Your task to perform on an android device: uninstall "Calculator" Image 0: 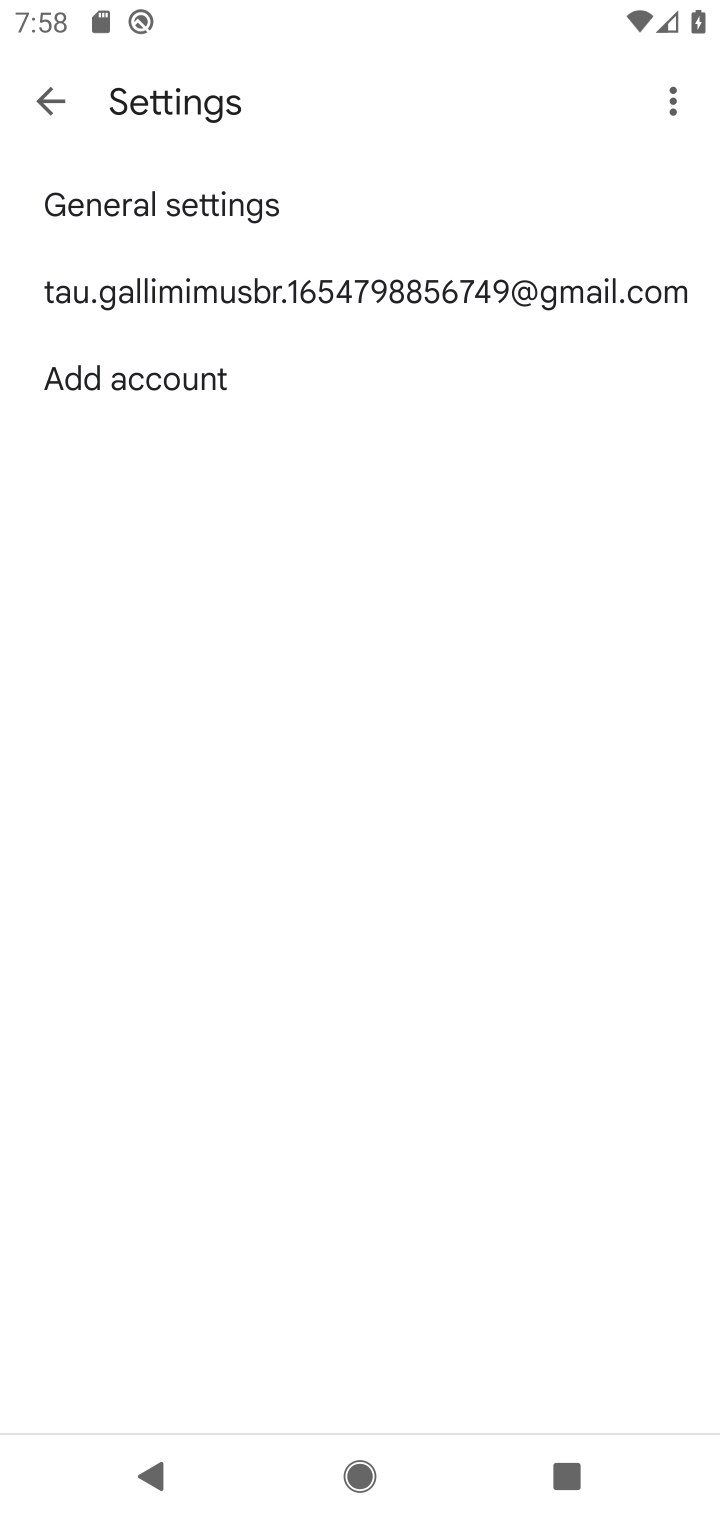
Step 0: press home button
Your task to perform on an android device: uninstall "Calculator" Image 1: 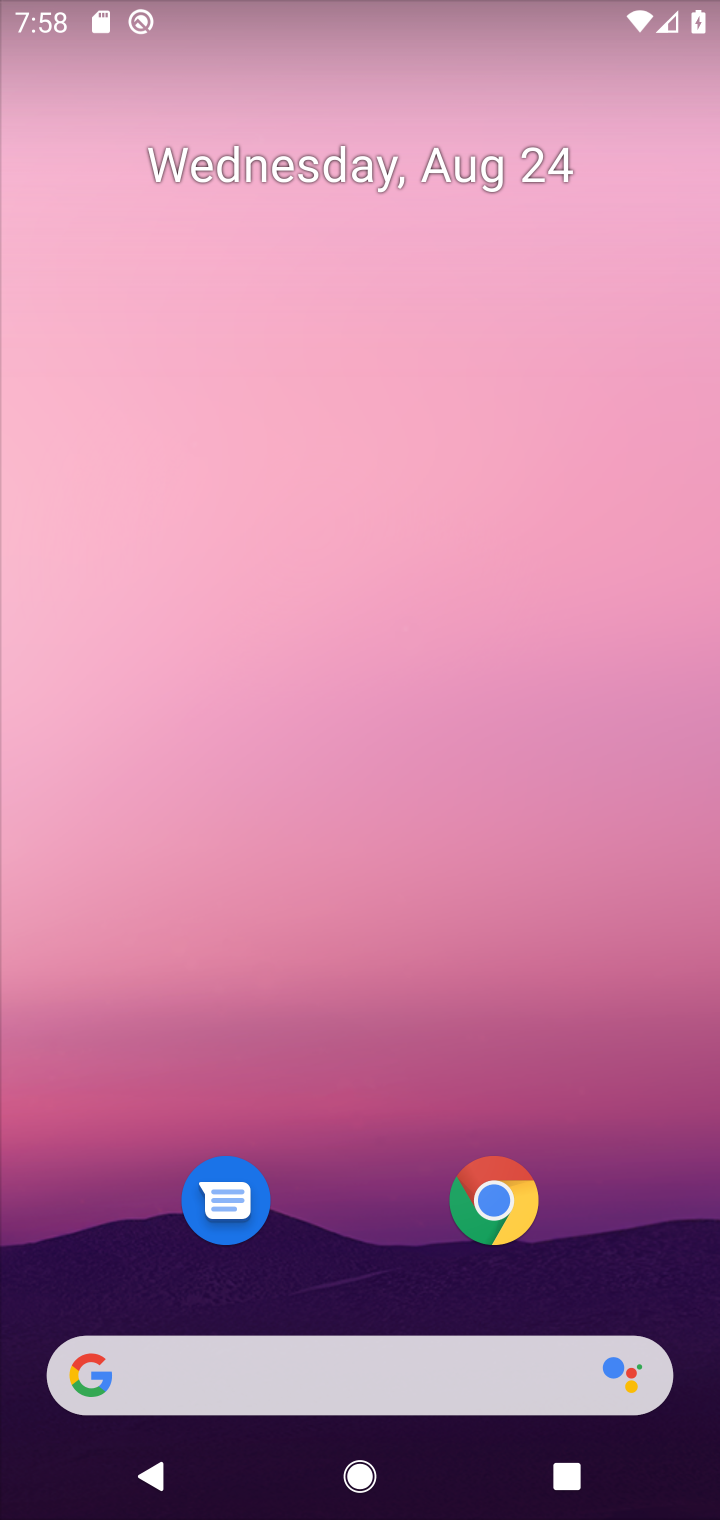
Step 1: drag from (289, 1267) to (168, 2)
Your task to perform on an android device: uninstall "Calculator" Image 2: 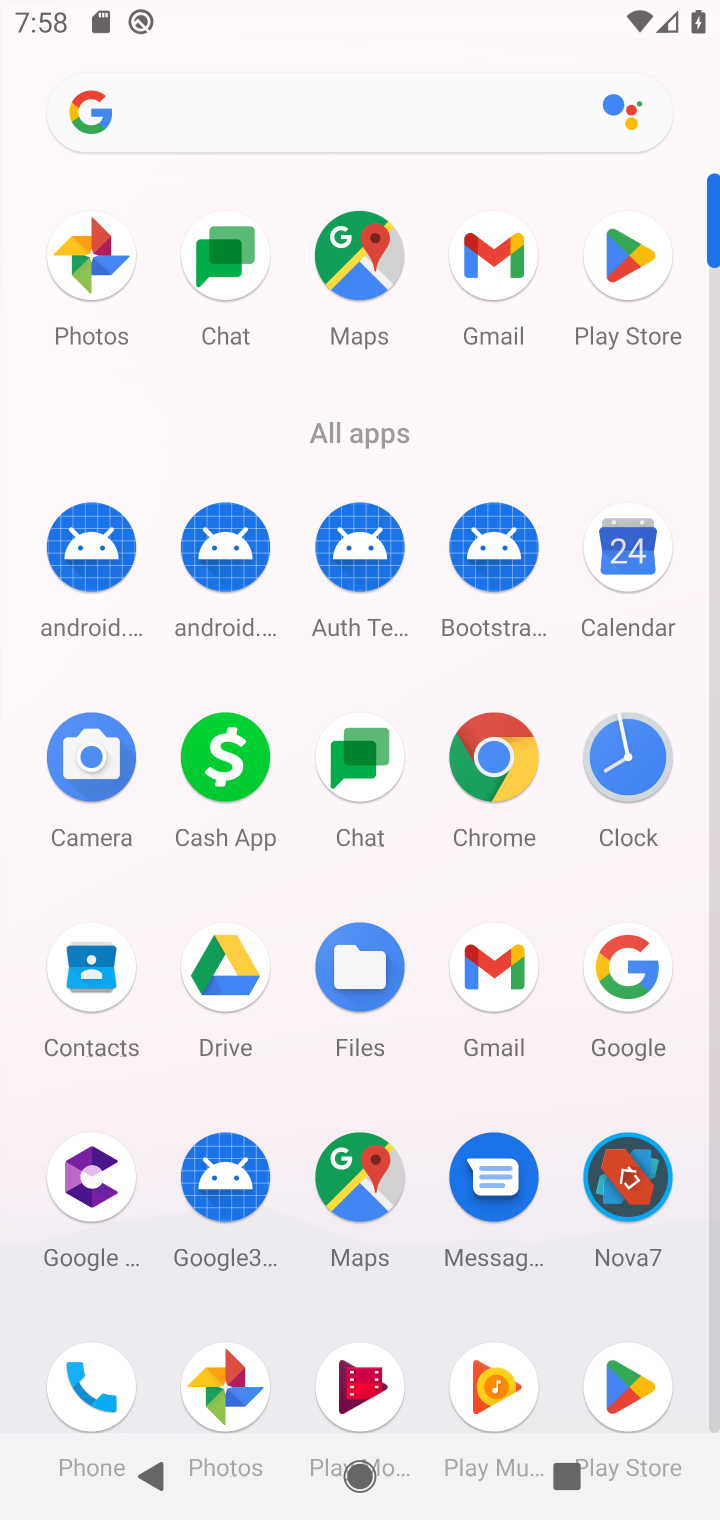
Step 2: click (610, 295)
Your task to perform on an android device: uninstall "Calculator" Image 3: 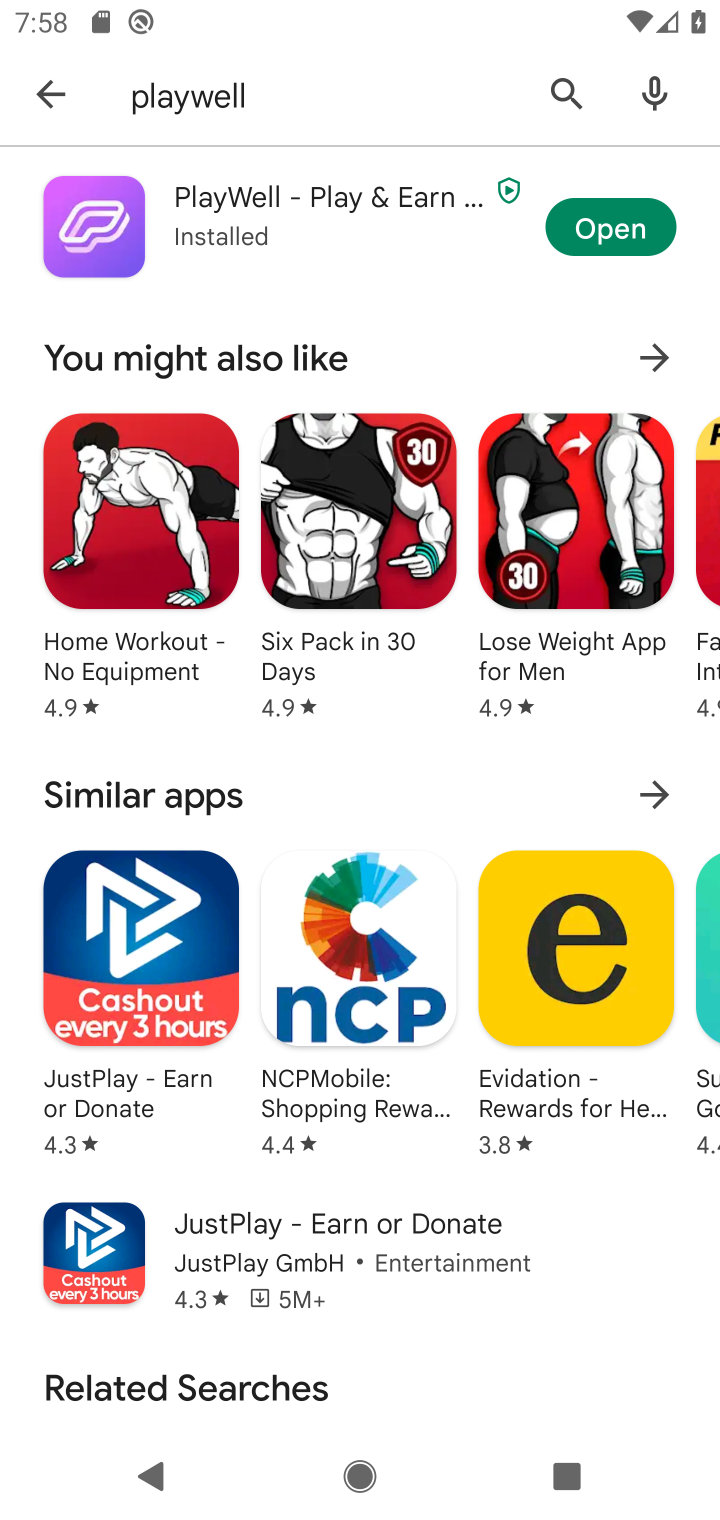
Step 3: click (197, 99)
Your task to perform on an android device: uninstall "Calculator" Image 4: 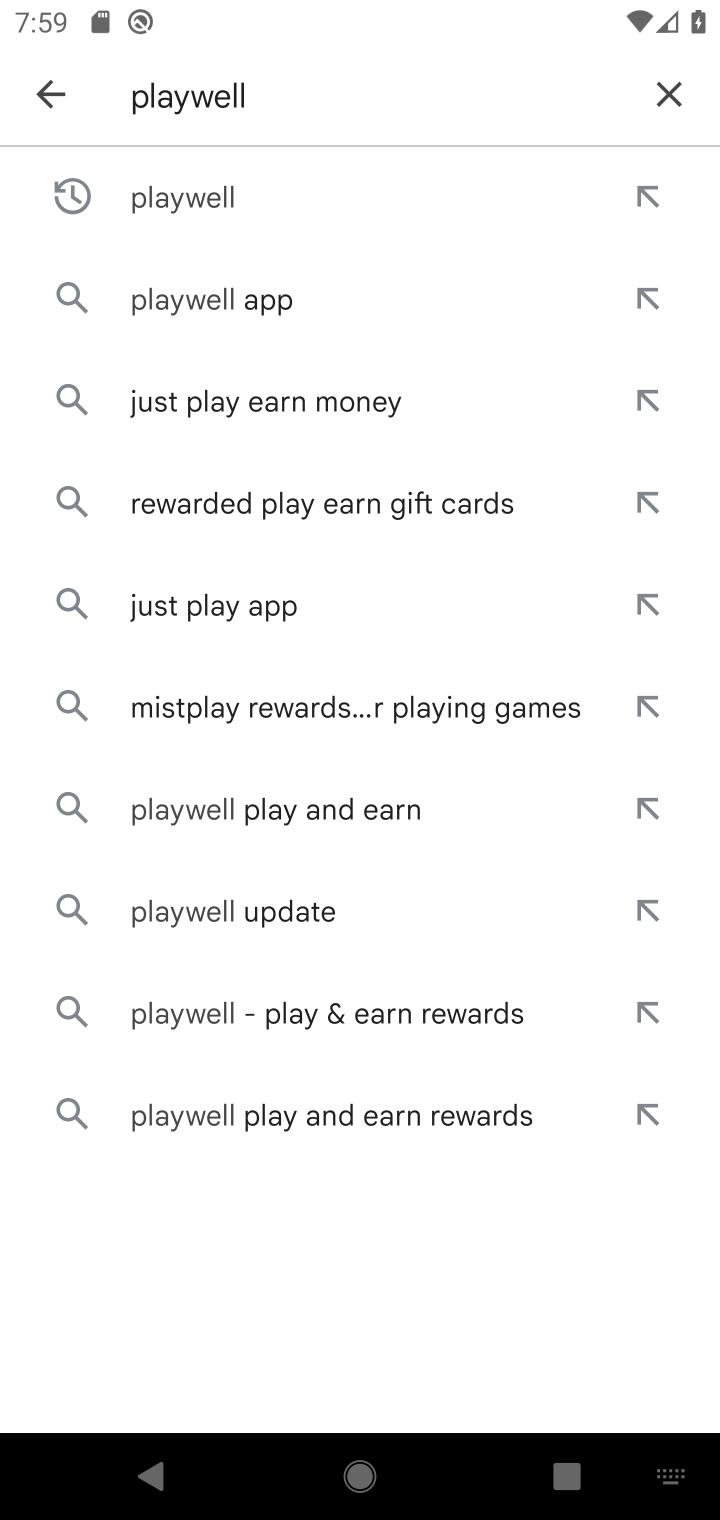
Step 4: click (672, 101)
Your task to perform on an android device: uninstall "Calculator" Image 5: 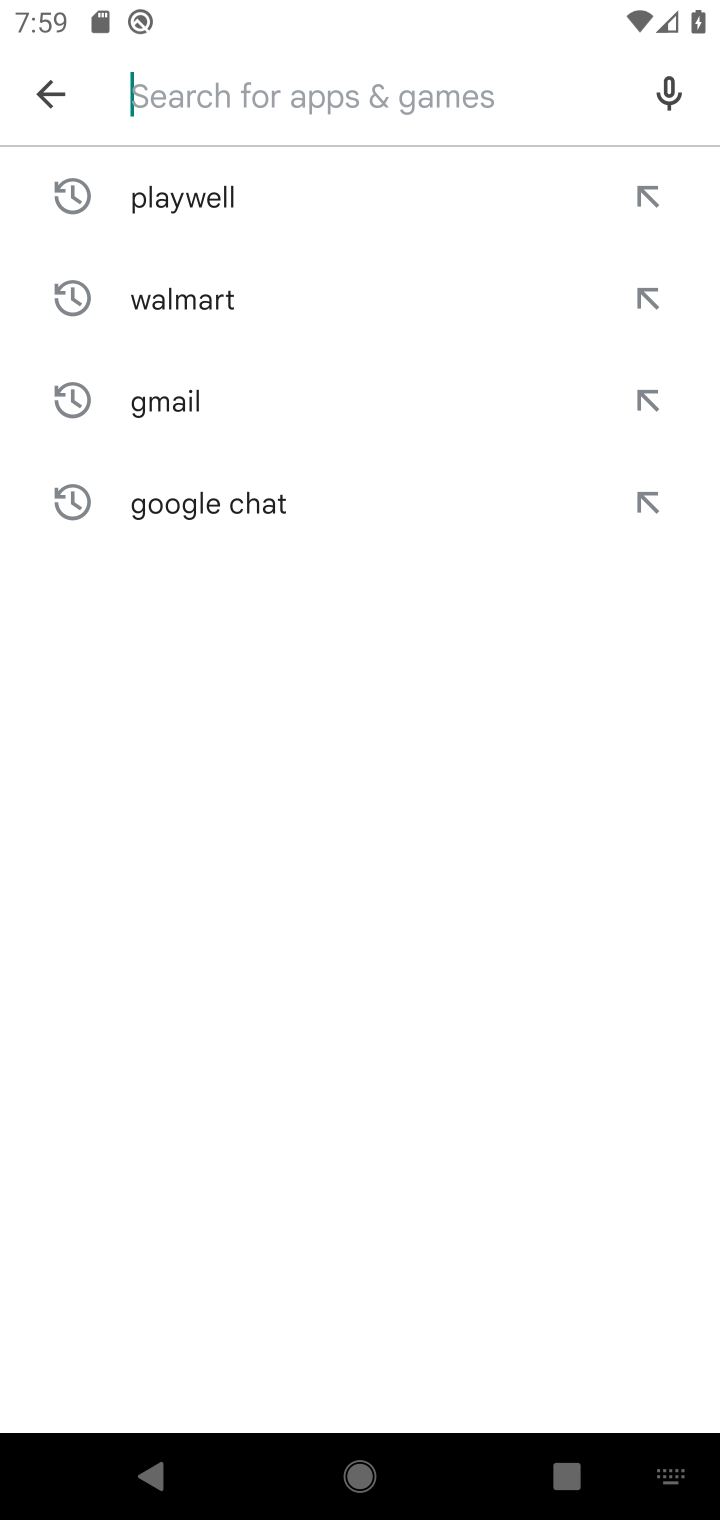
Step 5: type "calculator"
Your task to perform on an android device: uninstall "Calculator" Image 6: 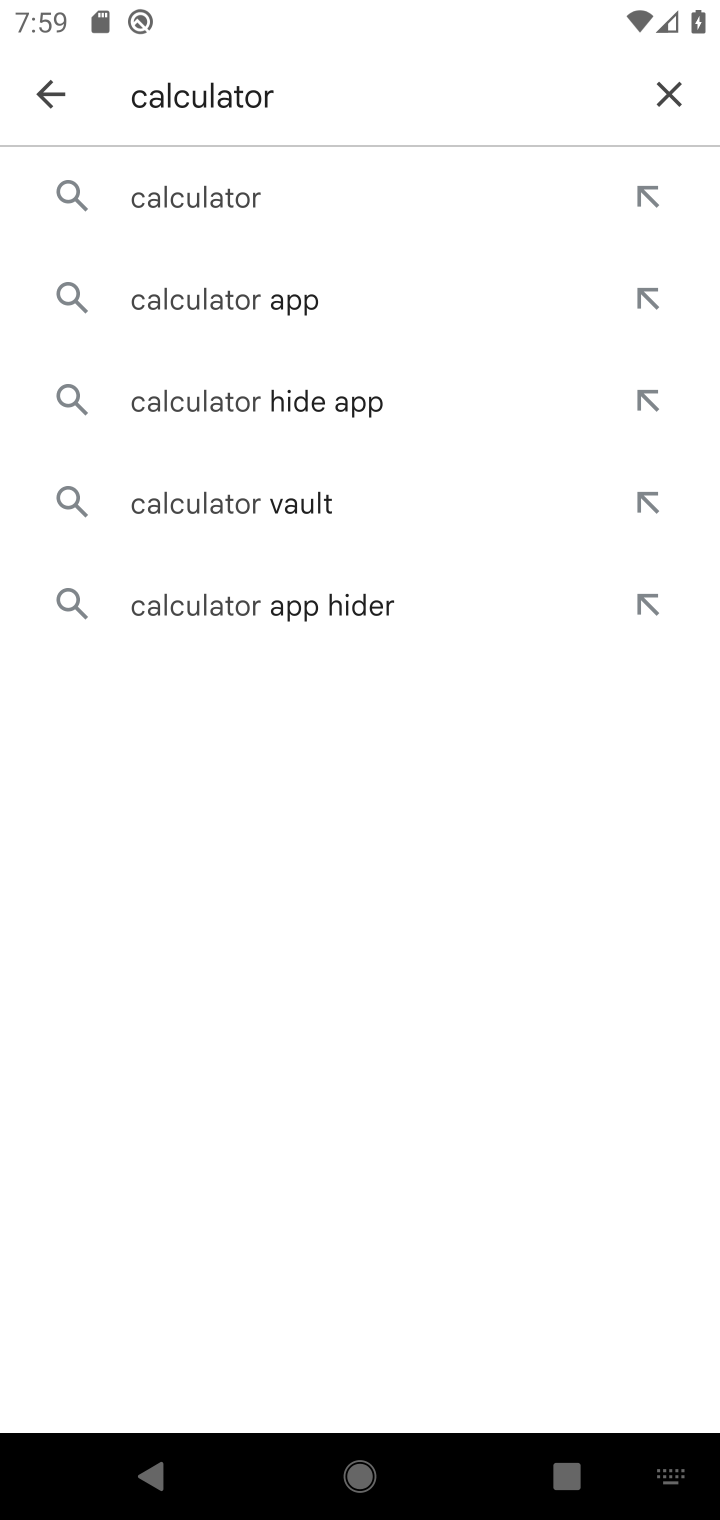
Step 6: click (290, 176)
Your task to perform on an android device: uninstall "Calculator" Image 7: 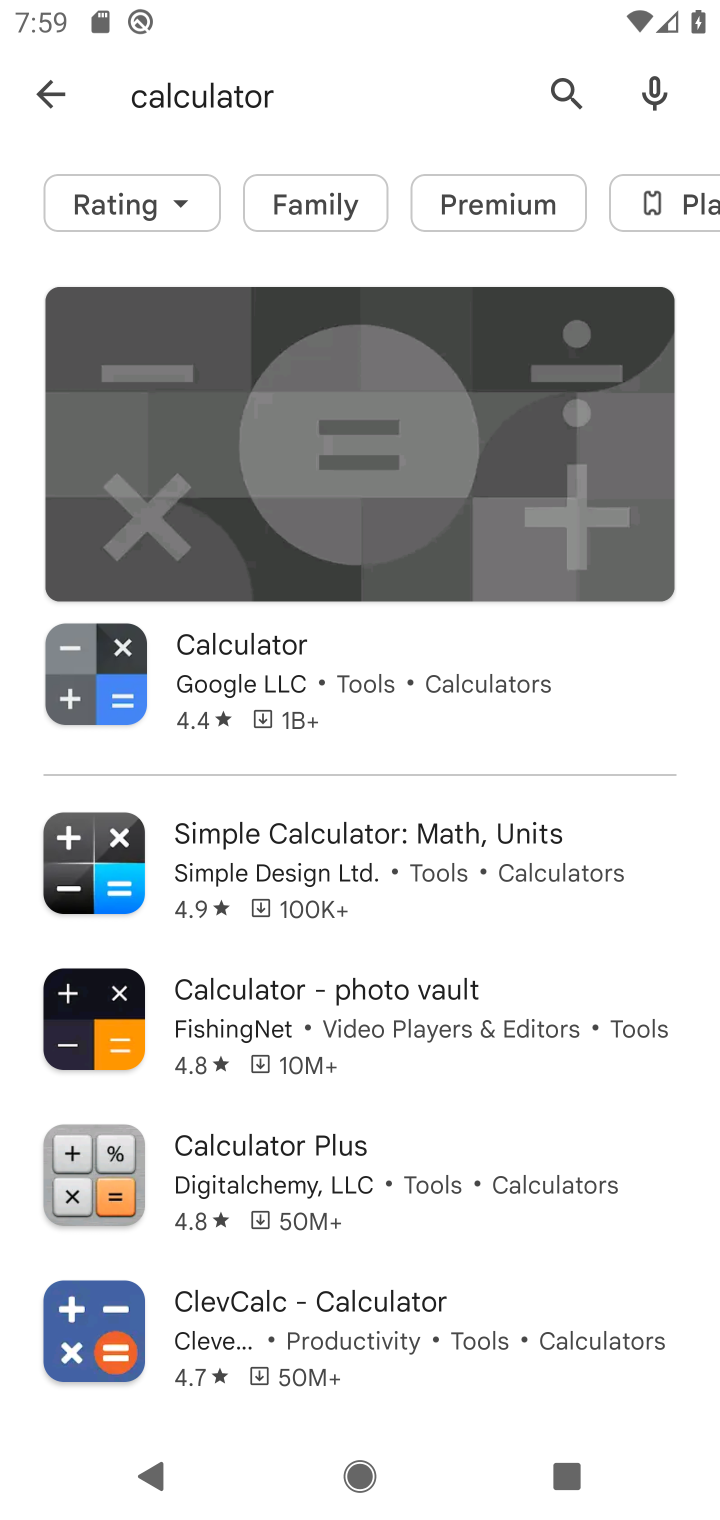
Step 7: click (324, 663)
Your task to perform on an android device: uninstall "Calculator" Image 8: 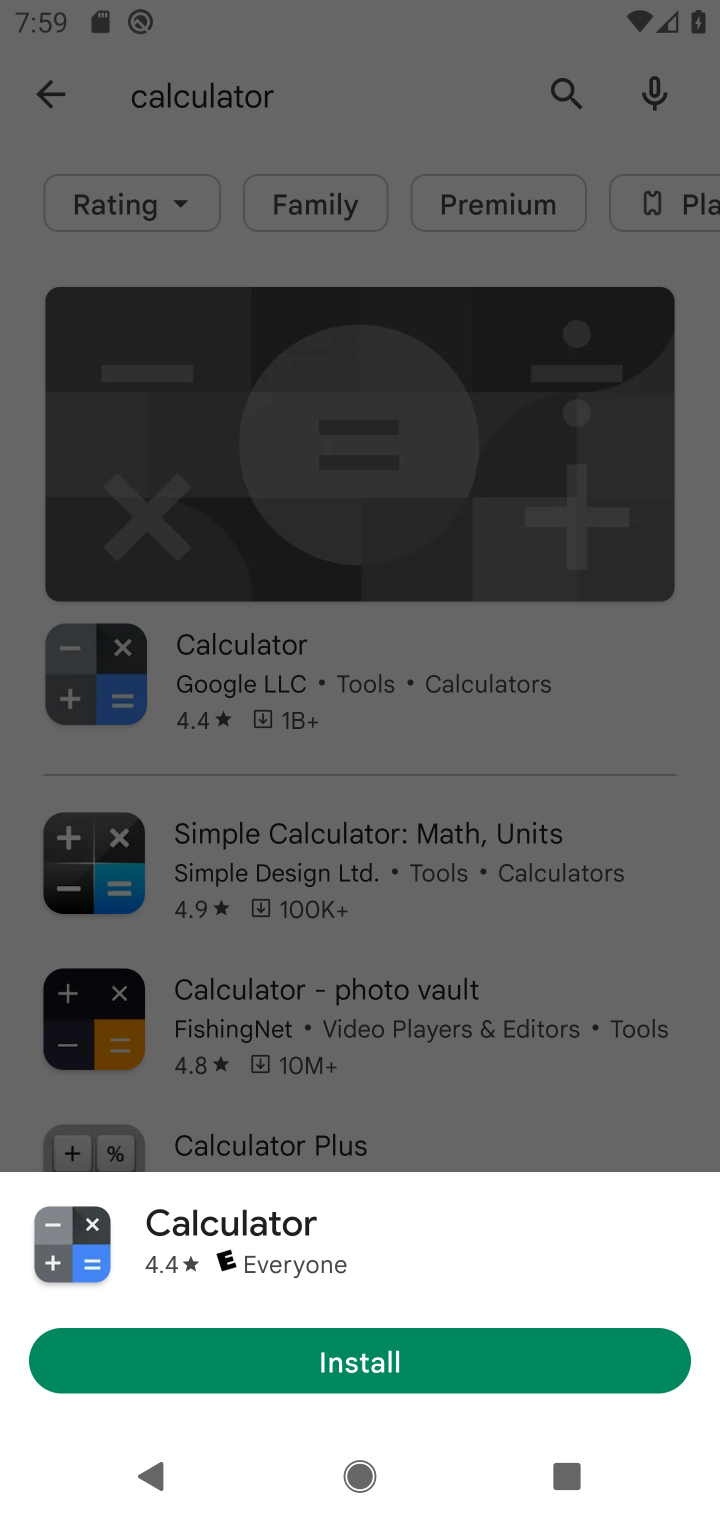
Step 8: task complete